Your task to perform on an android device: make emails show in primary in the gmail app Image 0: 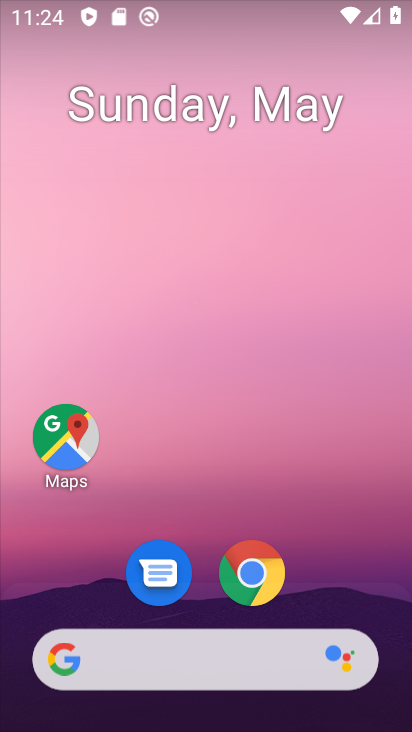
Step 0: drag from (96, 632) to (200, 157)
Your task to perform on an android device: make emails show in primary in the gmail app Image 1: 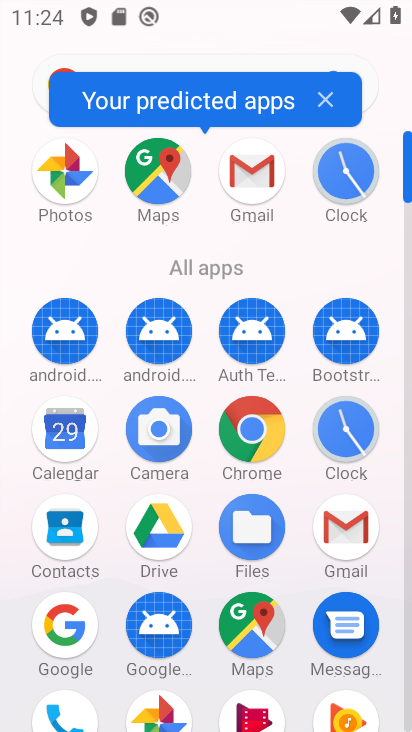
Step 1: click (351, 538)
Your task to perform on an android device: make emails show in primary in the gmail app Image 2: 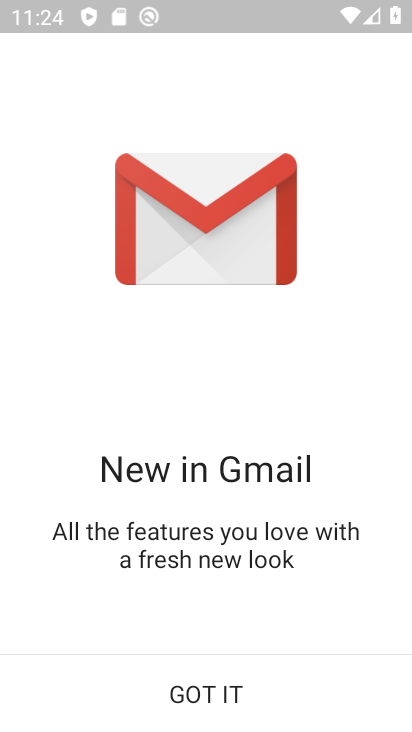
Step 2: click (261, 709)
Your task to perform on an android device: make emails show in primary in the gmail app Image 3: 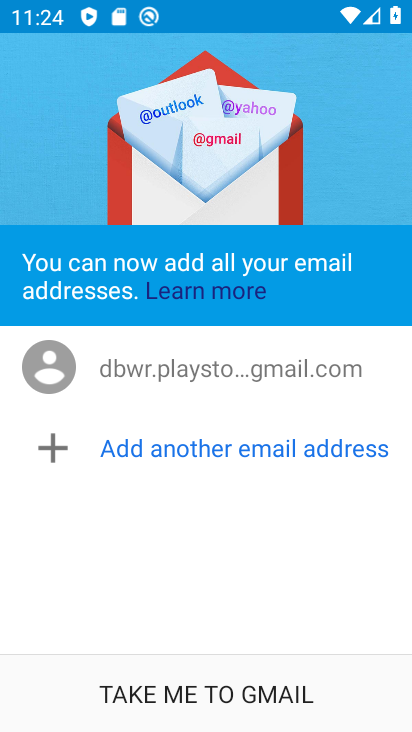
Step 3: click (261, 709)
Your task to perform on an android device: make emails show in primary in the gmail app Image 4: 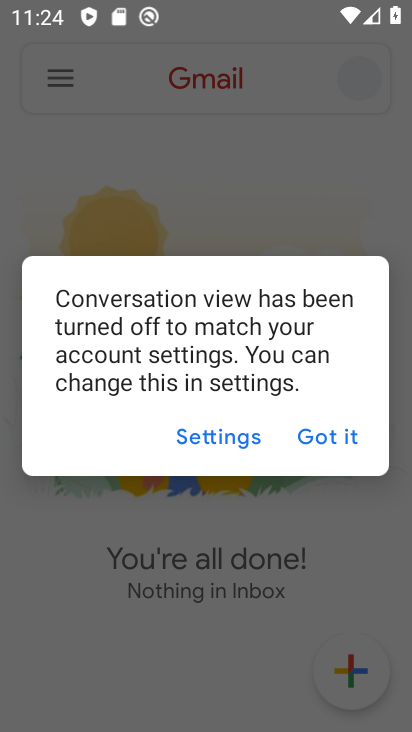
Step 4: click (354, 451)
Your task to perform on an android device: make emails show in primary in the gmail app Image 5: 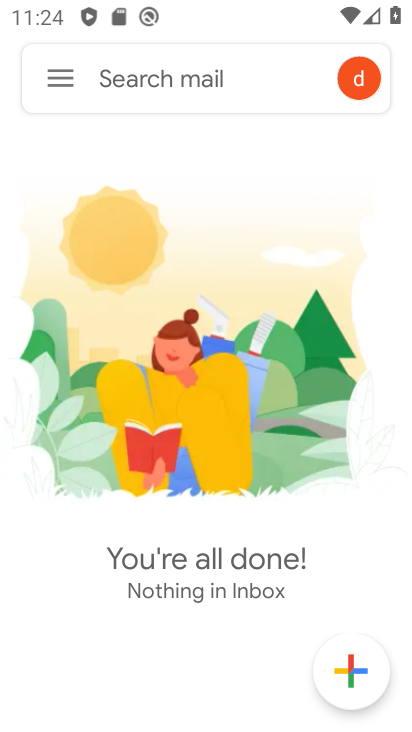
Step 5: click (49, 74)
Your task to perform on an android device: make emails show in primary in the gmail app Image 6: 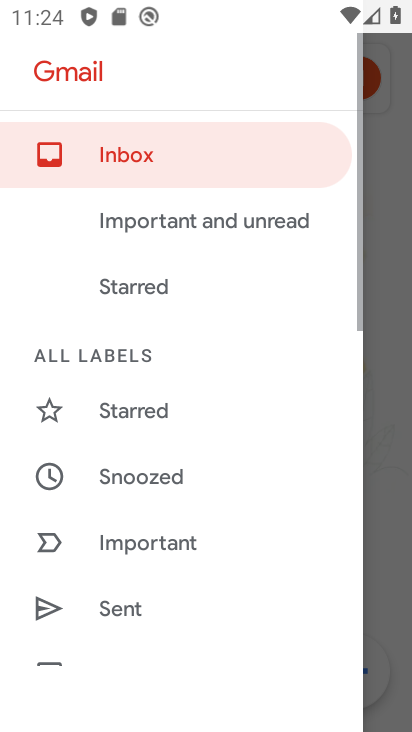
Step 6: drag from (44, 541) to (214, 156)
Your task to perform on an android device: make emails show in primary in the gmail app Image 7: 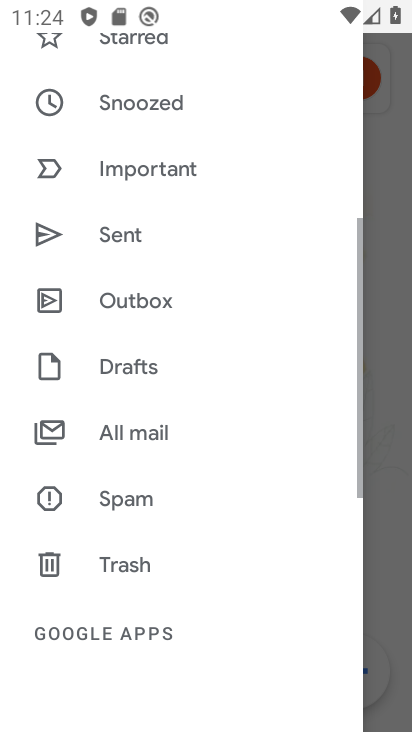
Step 7: drag from (145, 632) to (243, 174)
Your task to perform on an android device: make emails show in primary in the gmail app Image 8: 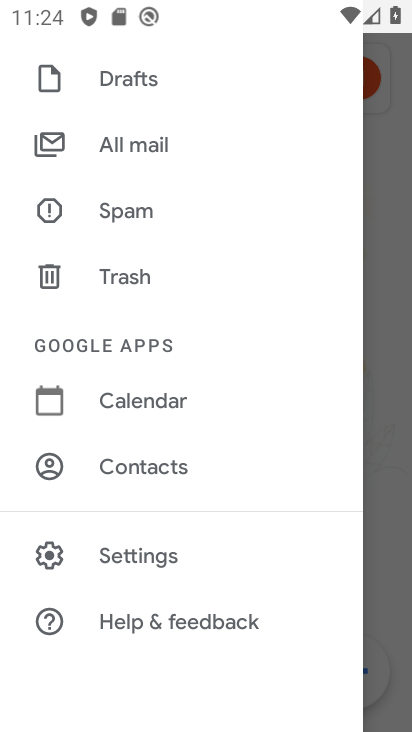
Step 8: click (131, 560)
Your task to perform on an android device: make emails show in primary in the gmail app Image 9: 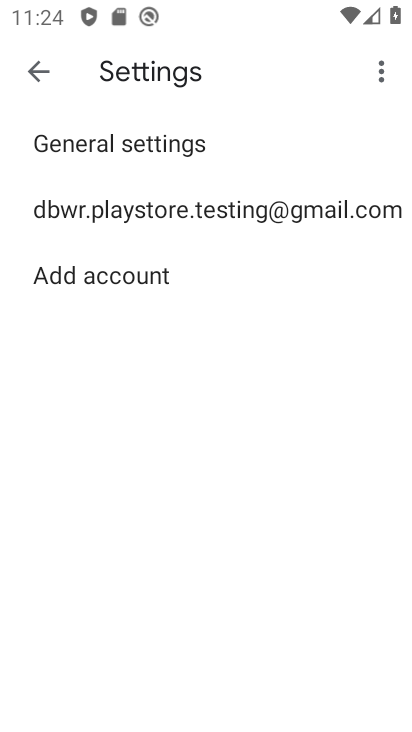
Step 9: click (318, 216)
Your task to perform on an android device: make emails show in primary in the gmail app Image 10: 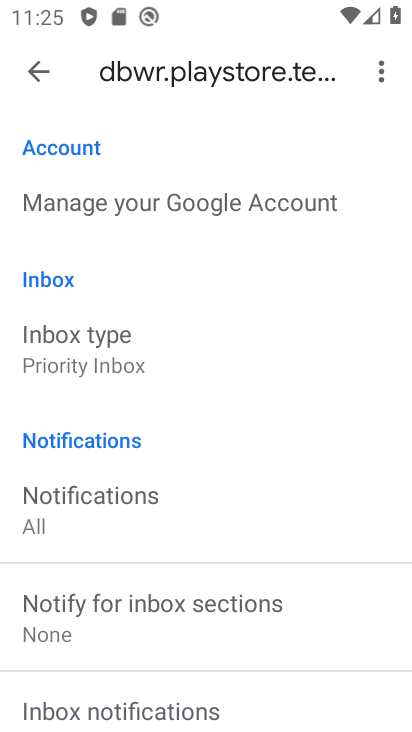
Step 10: click (191, 340)
Your task to perform on an android device: make emails show in primary in the gmail app Image 11: 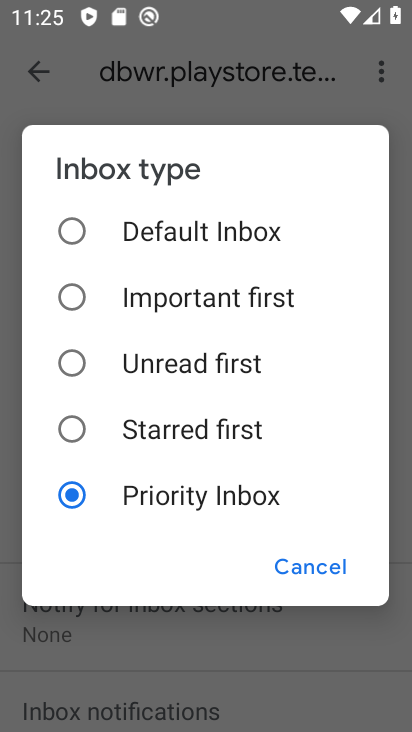
Step 11: click (174, 342)
Your task to perform on an android device: make emails show in primary in the gmail app Image 12: 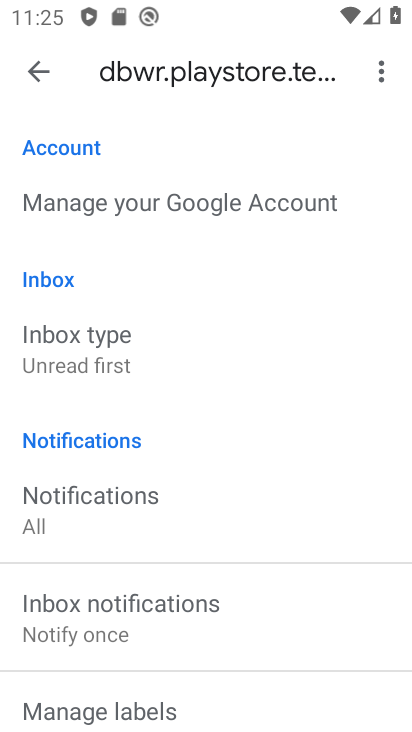
Step 12: click (175, 361)
Your task to perform on an android device: make emails show in primary in the gmail app Image 13: 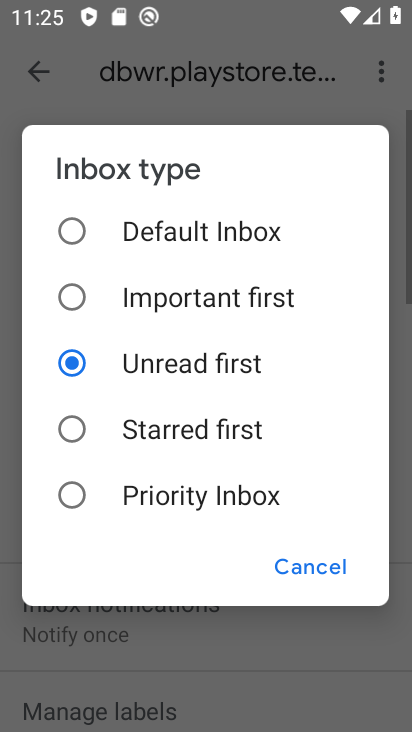
Step 13: click (194, 219)
Your task to perform on an android device: make emails show in primary in the gmail app Image 14: 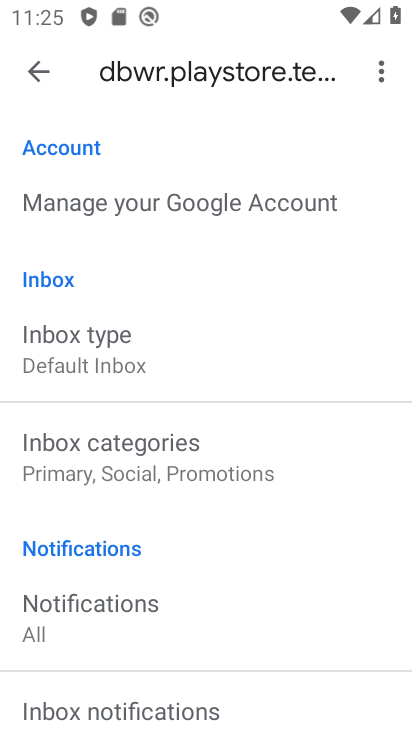
Step 14: click (182, 485)
Your task to perform on an android device: make emails show in primary in the gmail app Image 15: 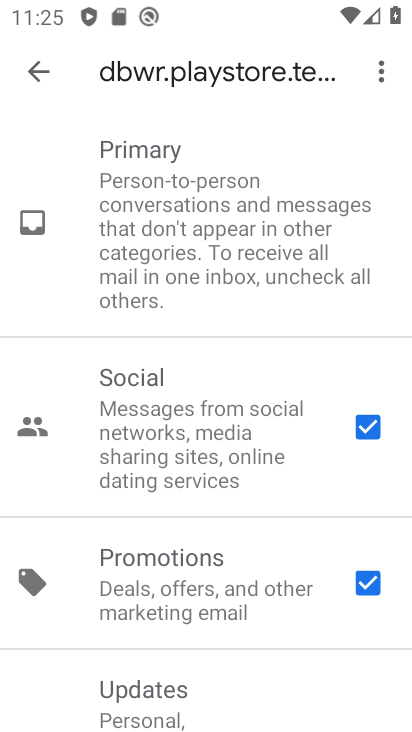
Step 15: drag from (189, 606) to (325, 85)
Your task to perform on an android device: make emails show in primary in the gmail app Image 16: 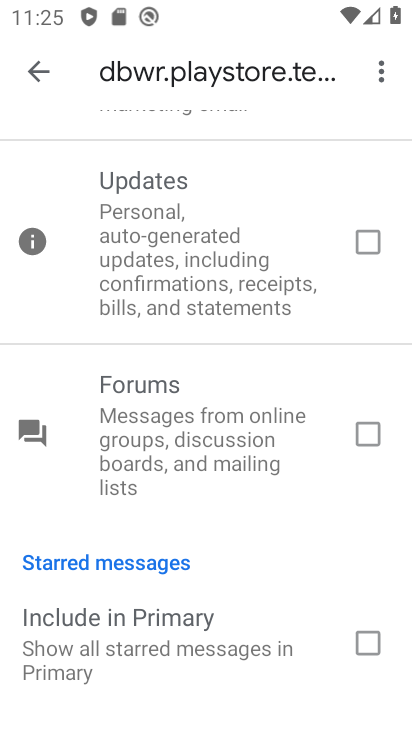
Step 16: click (389, 652)
Your task to perform on an android device: make emails show in primary in the gmail app Image 17: 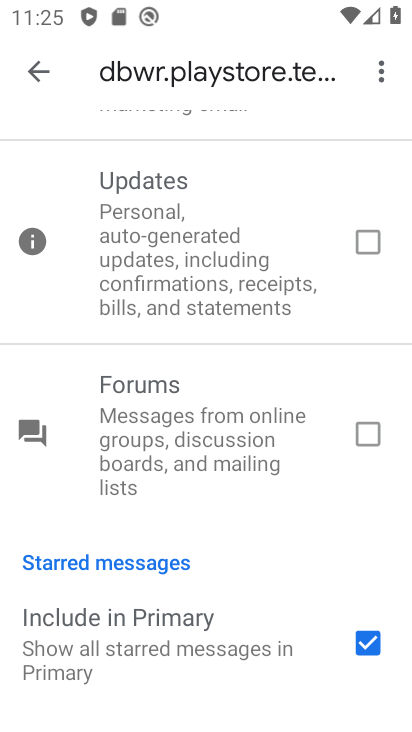
Step 17: task complete